Your task to perform on an android device: turn on location history Image 0: 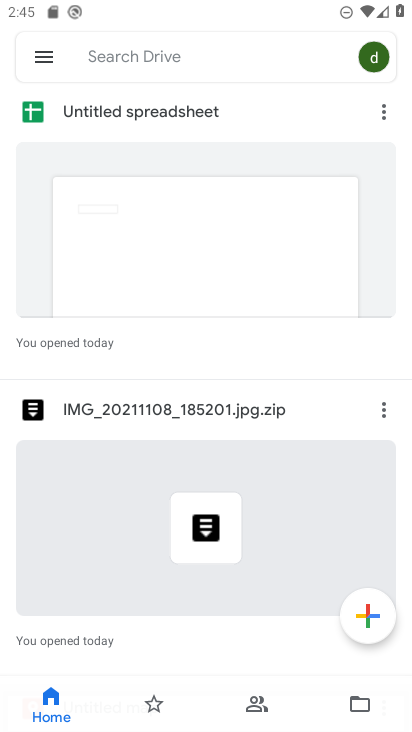
Step 0: press back button
Your task to perform on an android device: turn on location history Image 1: 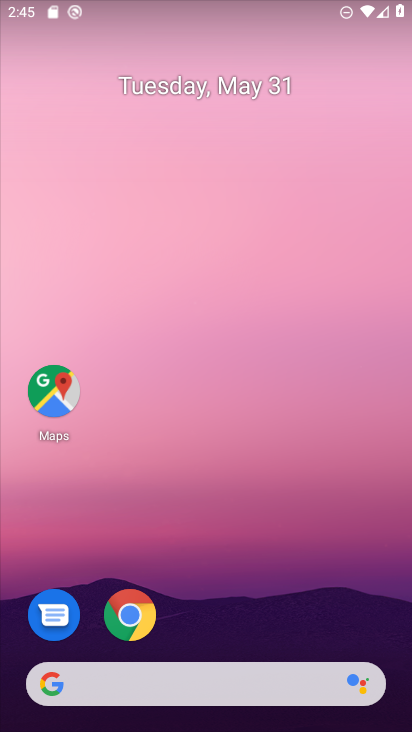
Step 1: drag from (297, 697) to (198, 223)
Your task to perform on an android device: turn on location history Image 2: 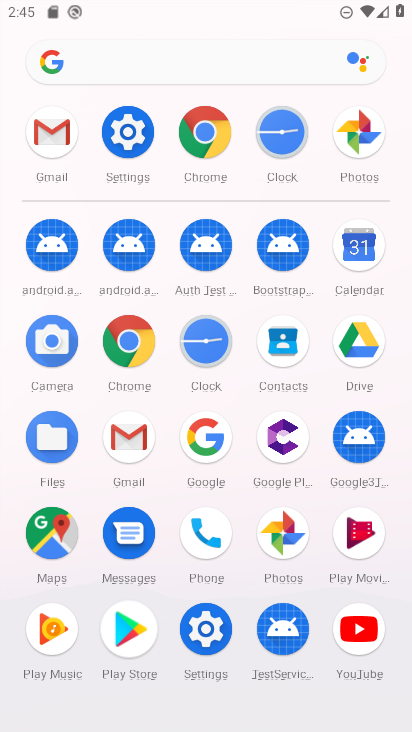
Step 2: click (134, 135)
Your task to perform on an android device: turn on location history Image 3: 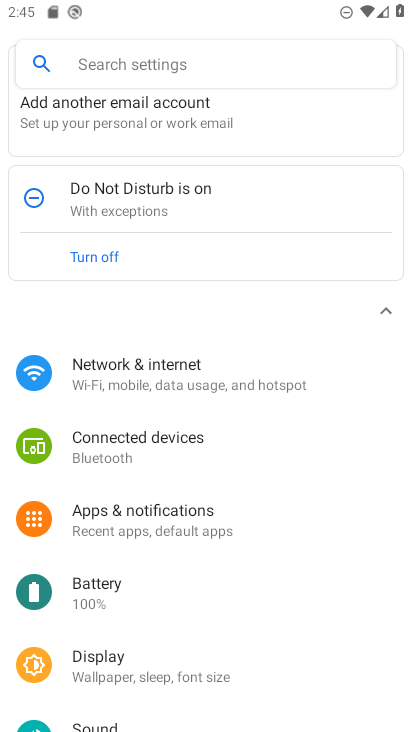
Step 3: drag from (138, 609) to (138, 221)
Your task to perform on an android device: turn on location history Image 4: 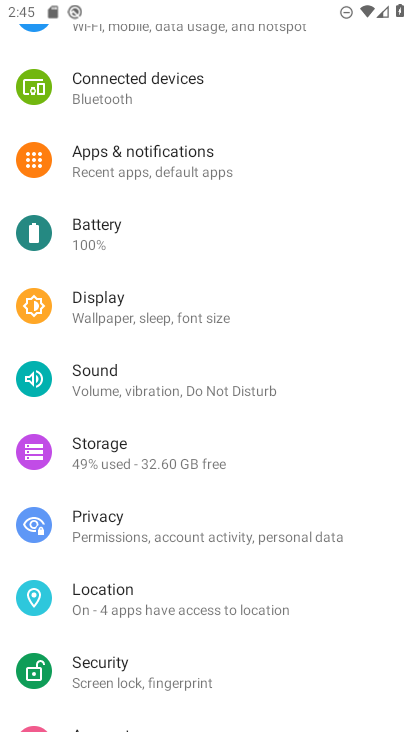
Step 4: click (110, 604)
Your task to perform on an android device: turn on location history Image 5: 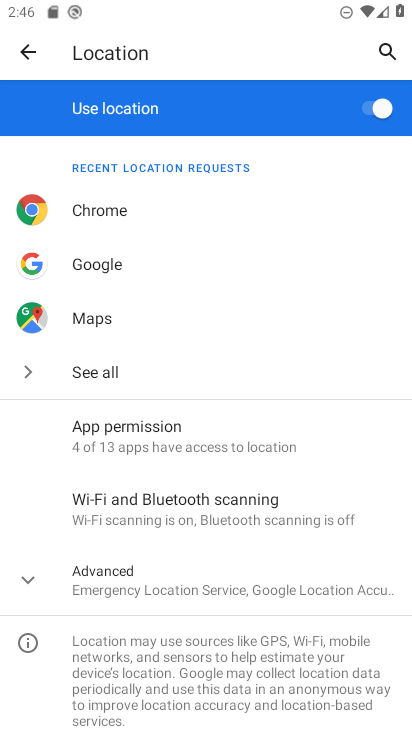
Step 5: click (126, 581)
Your task to perform on an android device: turn on location history Image 6: 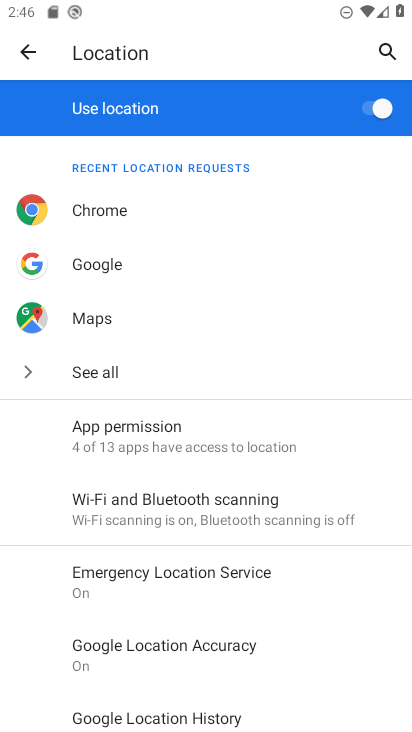
Step 6: drag from (216, 617) to (218, 293)
Your task to perform on an android device: turn on location history Image 7: 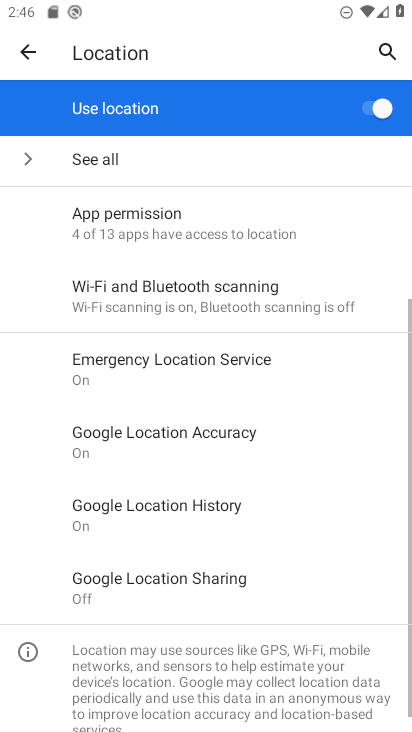
Step 7: drag from (237, 582) to (262, 289)
Your task to perform on an android device: turn on location history Image 8: 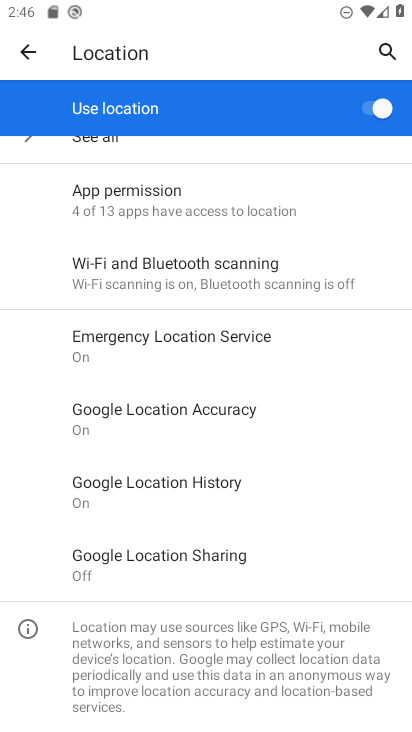
Step 8: click (108, 487)
Your task to perform on an android device: turn on location history Image 9: 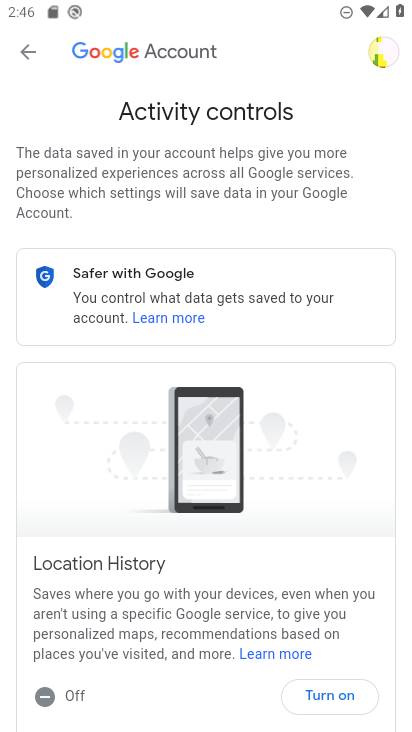
Step 9: task complete